Your task to perform on an android device: Do I have any events tomorrow? Image 0: 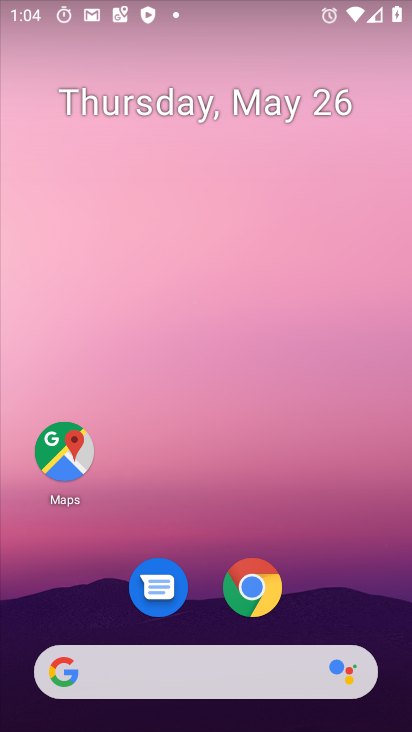
Step 0: drag from (220, 673) to (199, 208)
Your task to perform on an android device: Do I have any events tomorrow? Image 1: 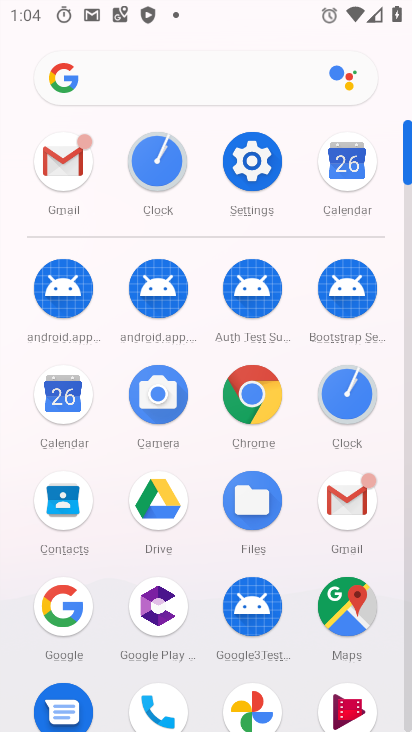
Step 1: click (337, 180)
Your task to perform on an android device: Do I have any events tomorrow? Image 2: 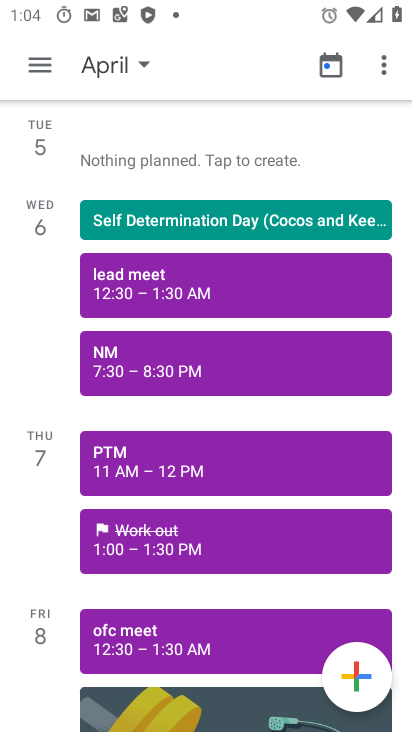
Step 2: click (53, 70)
Your task to perform on an android device: Do I have any events tomorrow? Image 3: 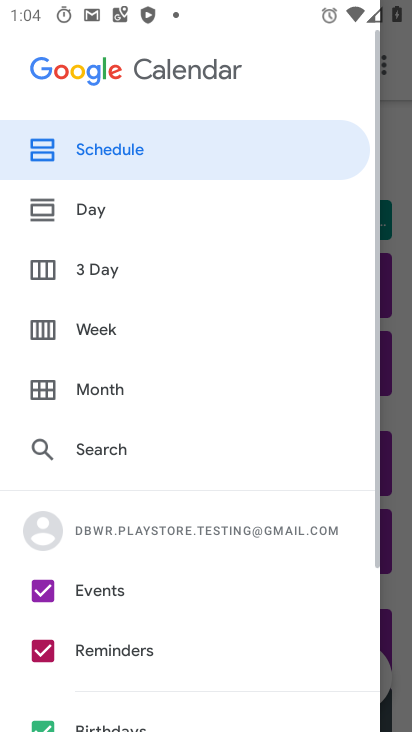
Step 3: click (91, 382)
Your task to perform on an android device: Do I have any events tomorrow? Image 4: 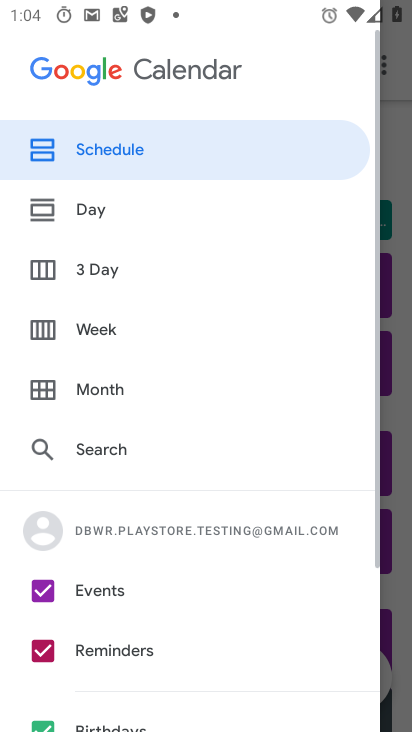
Step 4: click (111, 391)
Your task to perform on an android device: Do I have any events tomorrow? Image 5: 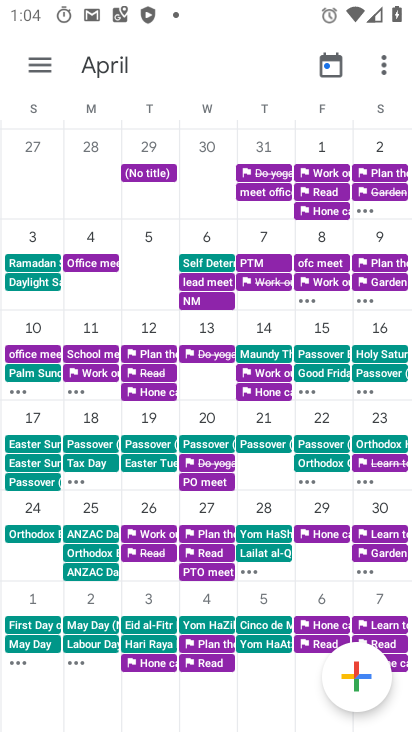
Step 5: drag from (329, 441) to (5, 410)
Your task to perform on an android device: Do I have any events tomorrow? Image 6: 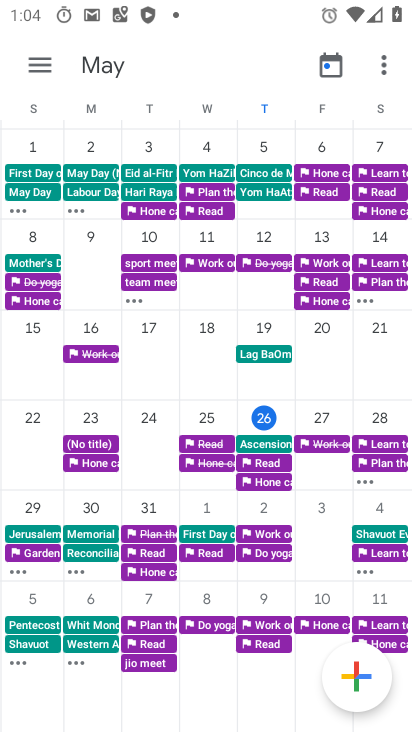
Step 6: click (318, 429)
Your task to perform on an android device: Do I have any events tomorrow? Image 7: 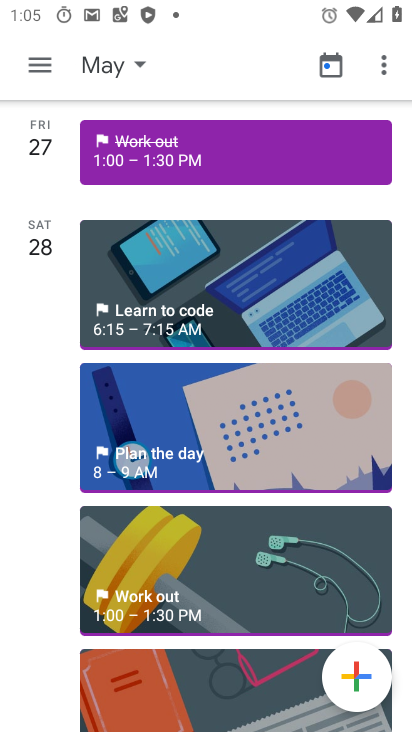
Step 7: task complete